Your task to perform on an android device: turn off location Image 0: 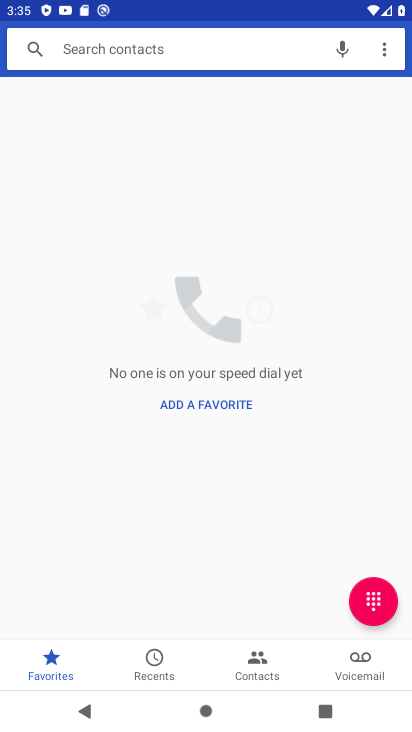
Step 0: press home button
Your task to perform on an android device: turn off location Image 1: 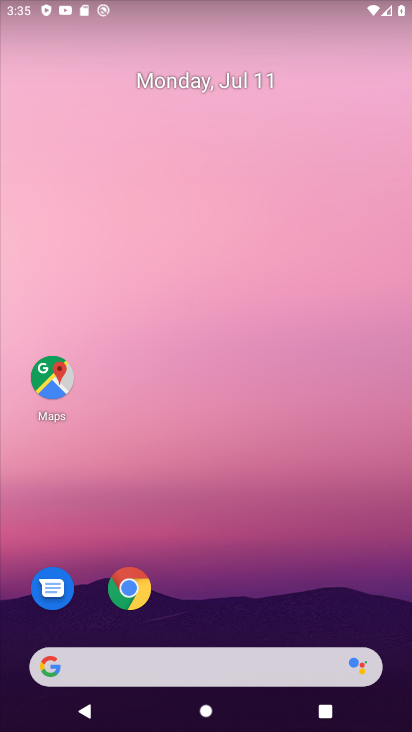
Step 1: drag from (376, 573) to (376, 101)
Your task to perform on an android device: turn off location Image 2: 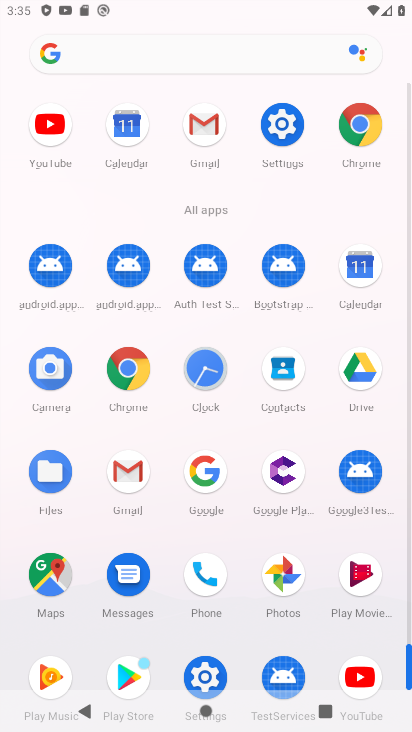
Step 2: click (283, 134)
Your task to perform on an android device: turn off location Image 3: 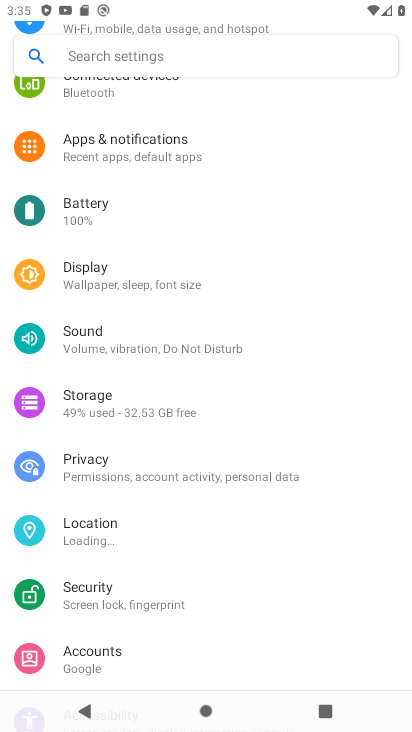
Step 3: drag from (293, 179) to (299, 260)
Your task to perform on an android device: turn off location Image 4: 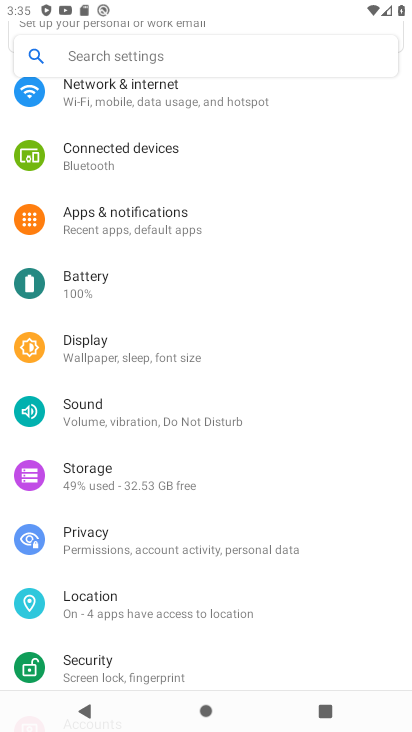
Step 4: drag from (310, 199) to (293, 317)
Your task to perform on an android device: turn off location Image 5: 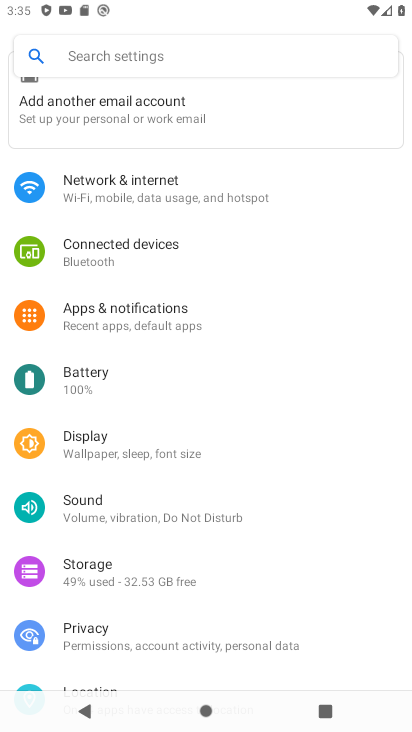
Step 5: drag from (328, 203) to (333, 336)
Your task to perform on an android device: turn off location Image 6: 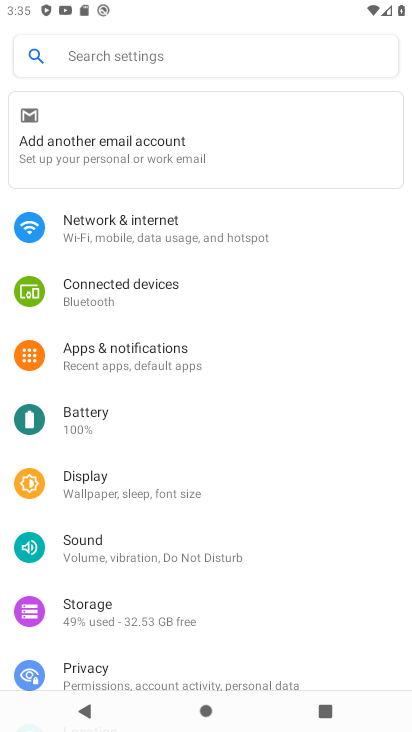
Step 6: drag from (348, 410) to (344, 324)
Your task to perform on an android device: turn off location Image 7: 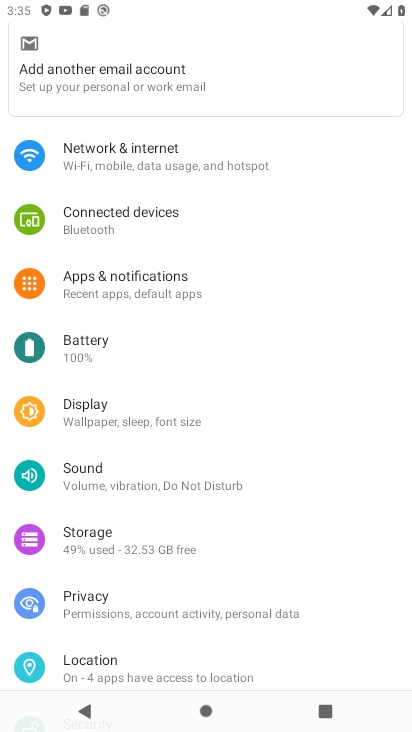
Step 7: drag from (354, 418) to (354, 315)
Your task to perform on an android device: turn off location Image 8: 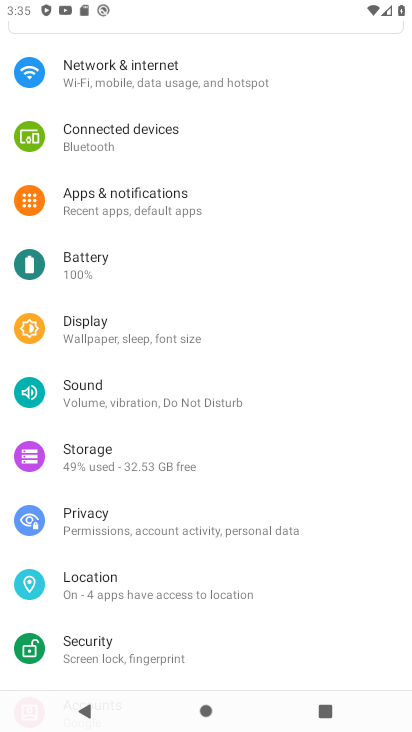
Step 8: drag from (340, 438) to (338, 341)
Your task to perform on an android device: turn off location Image 9: 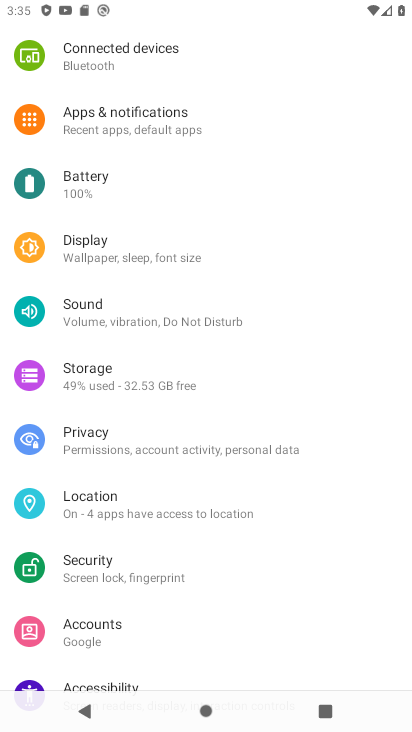
Step 9: drag from (343, 465) to (343, 378)
Your task to perform on an android device: turn off location Image 10: 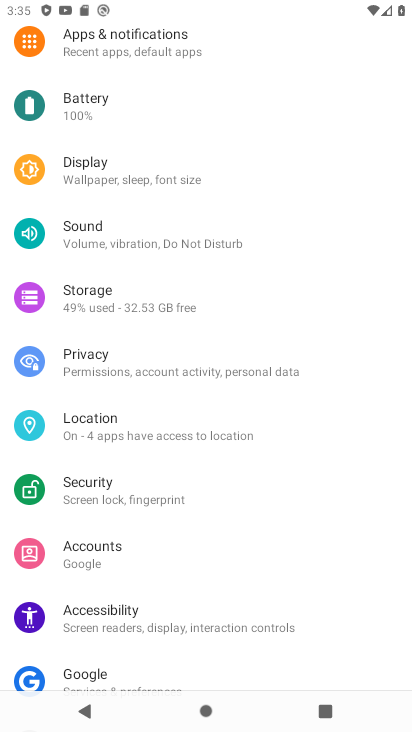
Step 10: drag from (328, 448) to (338, 355)
Your task to perform on an android device: turn off location Image 11: 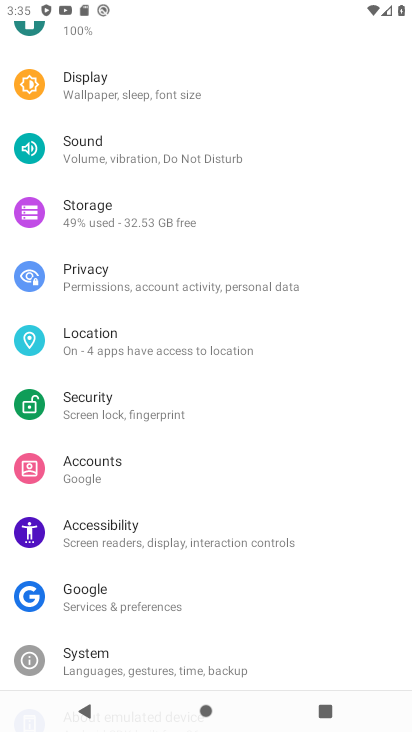
Step 11: drag from (335, 423) to (333, 323)
Your task to perform on an android device: turn off location Image 12: 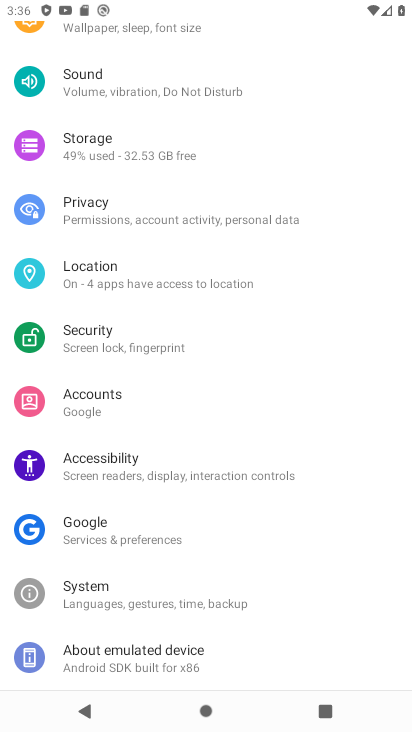
Step 12: click (277, 283)
Your task to perform on an android device: turn off location Image 13: 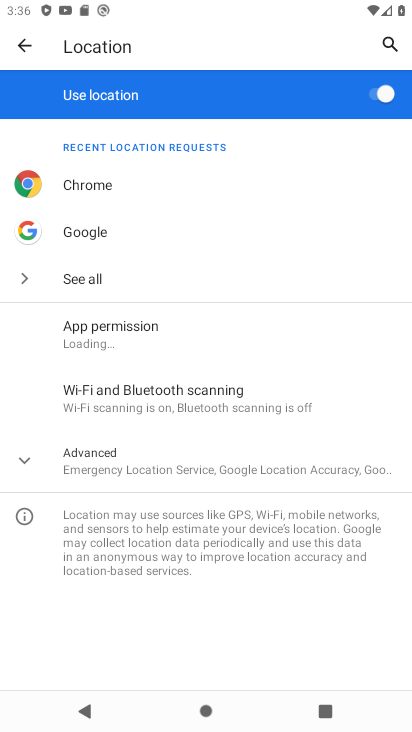
Step 13: click (386, 91)
Your task to perform on an android device: turn off location Image 14: 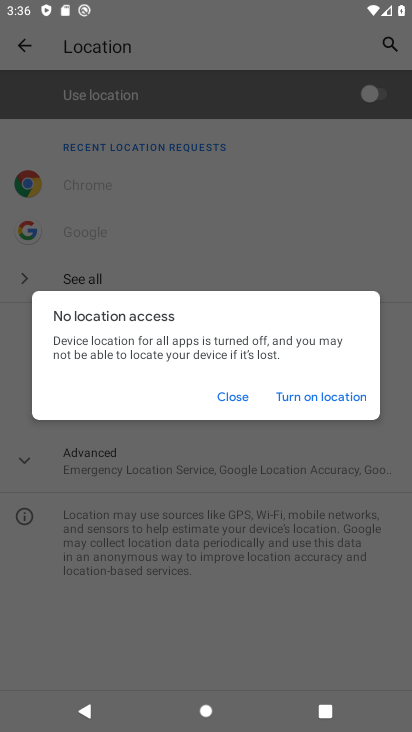
Step 14: task complete